Your task to perform on an android device: turn off sleep mode Image 0: 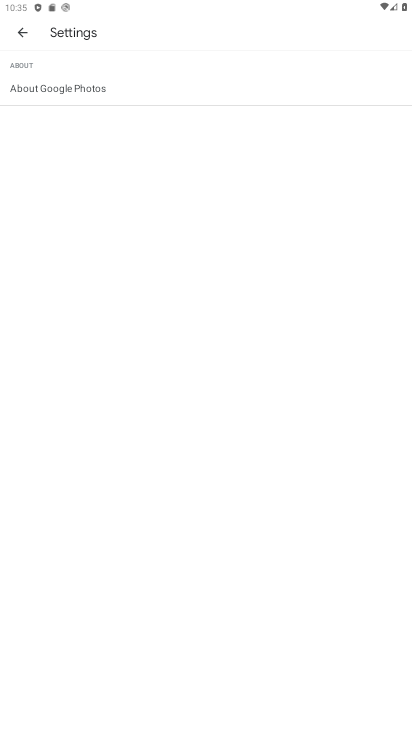
Step 0: press home button
Your task to perform on an android device: turn off sleep mode Image 1: 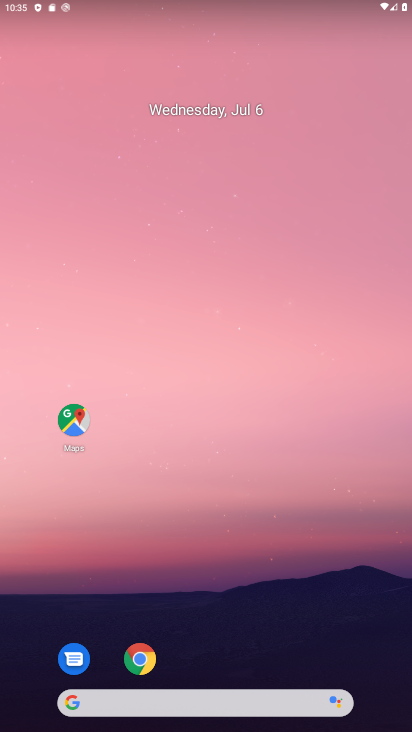
Step 1: drag from (232, 571) to (177, 148)
Your task to perform on an android device: turn off sleep mode Image 2: 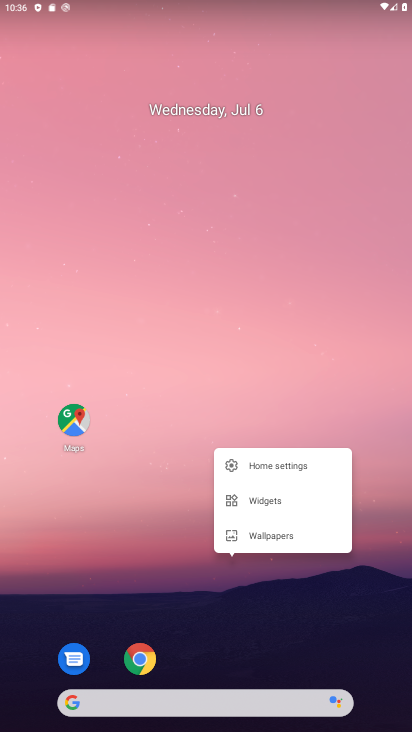
Step 2: click (171, 311)
Your task to perform on an android device: turn off sleep mode Image 3: 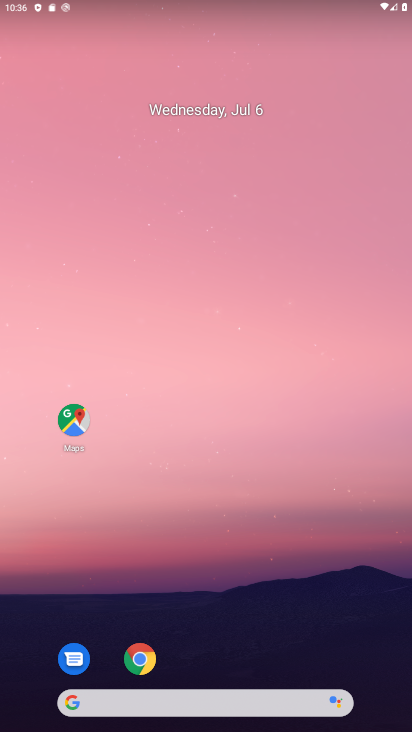
Step 3: drag from (211, 599) to (189, 107)
Your task to perform on an android device: turn off sleep mode Image 4: 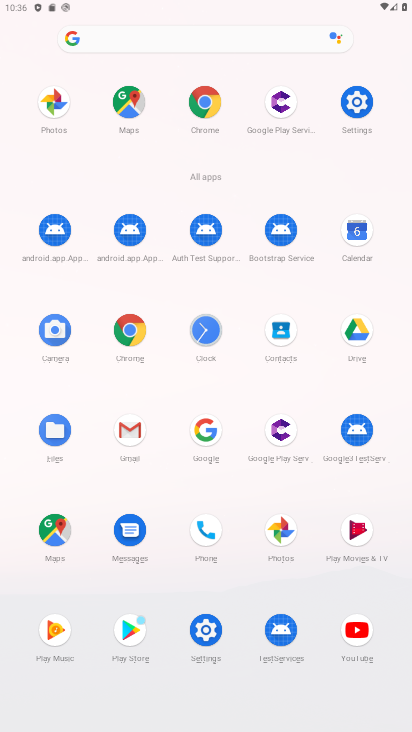
Step 4: click (350, 94)
Your task to perform on an android device: turn off sleep mode Image 5: 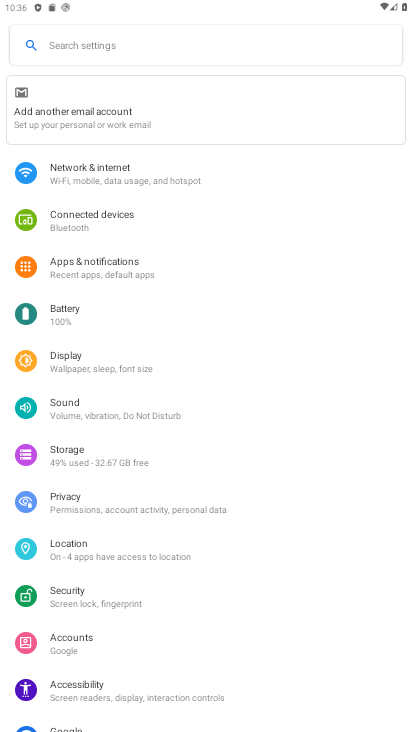
Step 5: click (84, 365)
Your task to perform on an android device: turn off sleep mode Image 6: 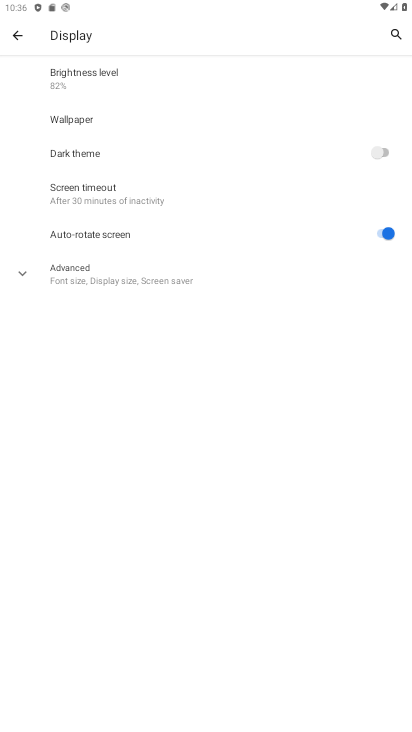
Step 6: click (14, 33)
Your task to perform on an android device: turn off sleep mode Image 7: 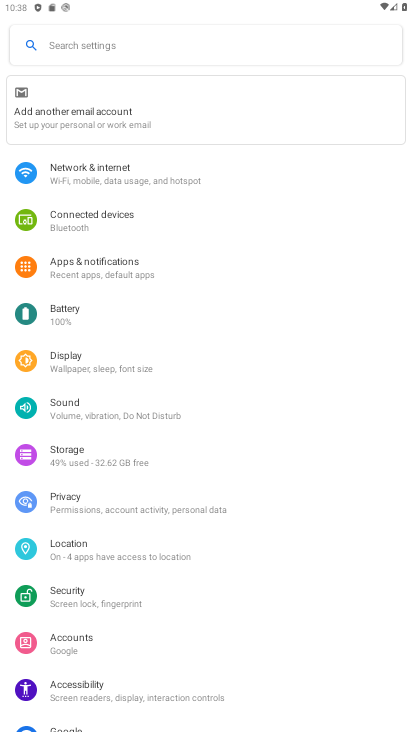
Step 7: task complete